Your task to perform on an android device: Add razer naga to the cart on ebay Image 0: 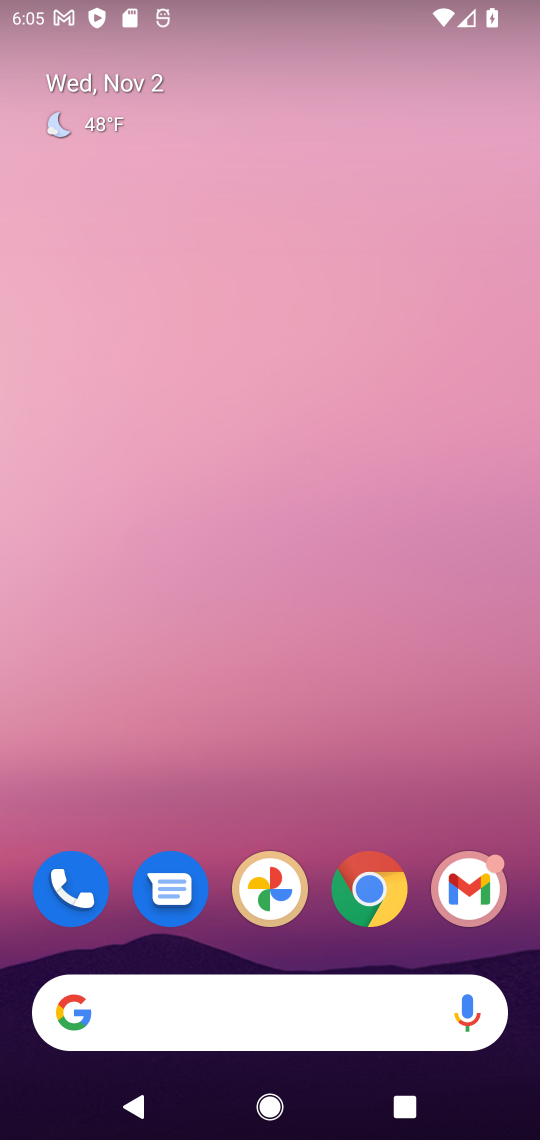
Step 0: click (365, 896)
Your task to perform on an android device: Add razer naga to the cart on ebay Image 1: 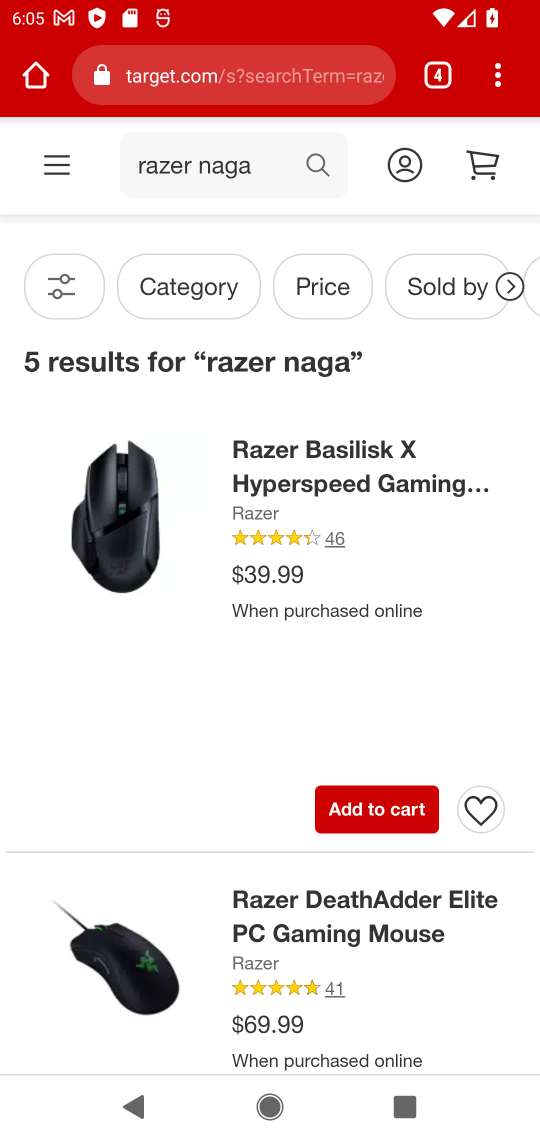
Step 1: click (332, 70)
Your task to perform on an android device: Add razer naga to the cart on ebay Image 2: 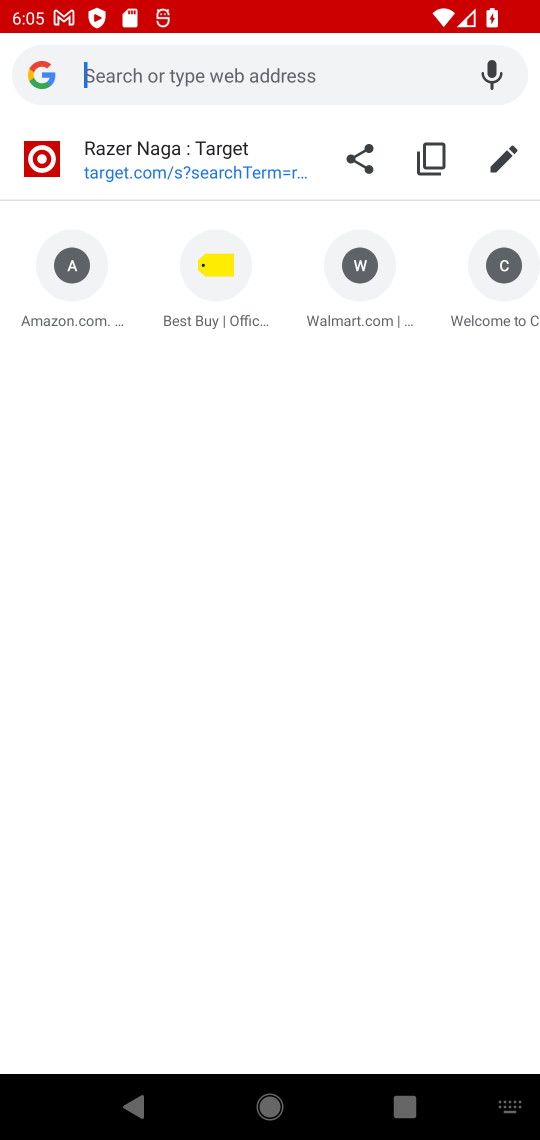
Step 2: drag from (444, 280) to (18, 291)
Your task to perform on an android device: Add razer naga to the cart on ebay Image 3: 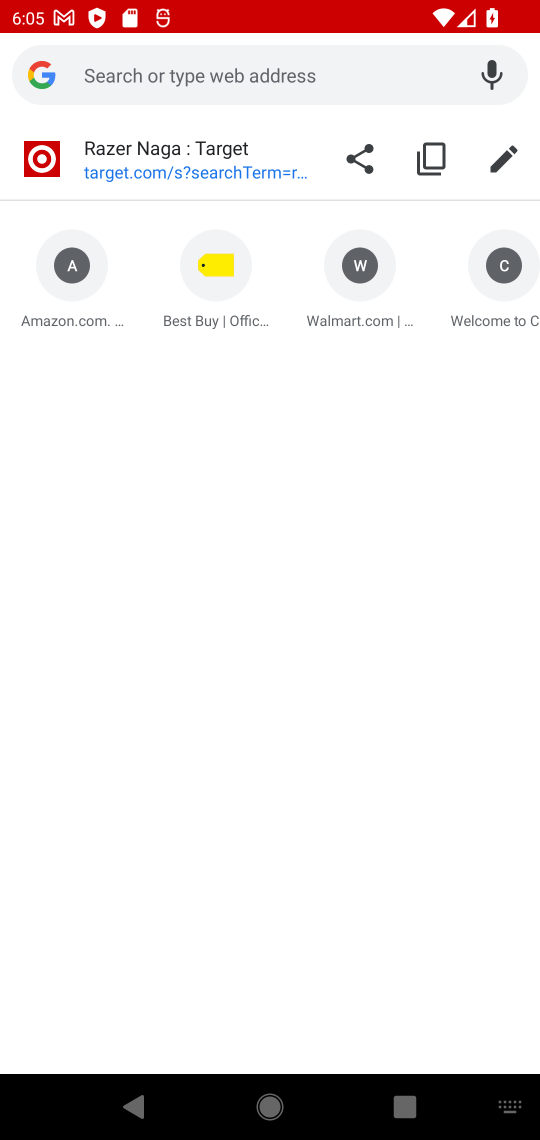
Step 3: drag from (351, 311) to (38, 281)
Your task to perform on an android device: Add razer naga to the cart on ebay Image 4: 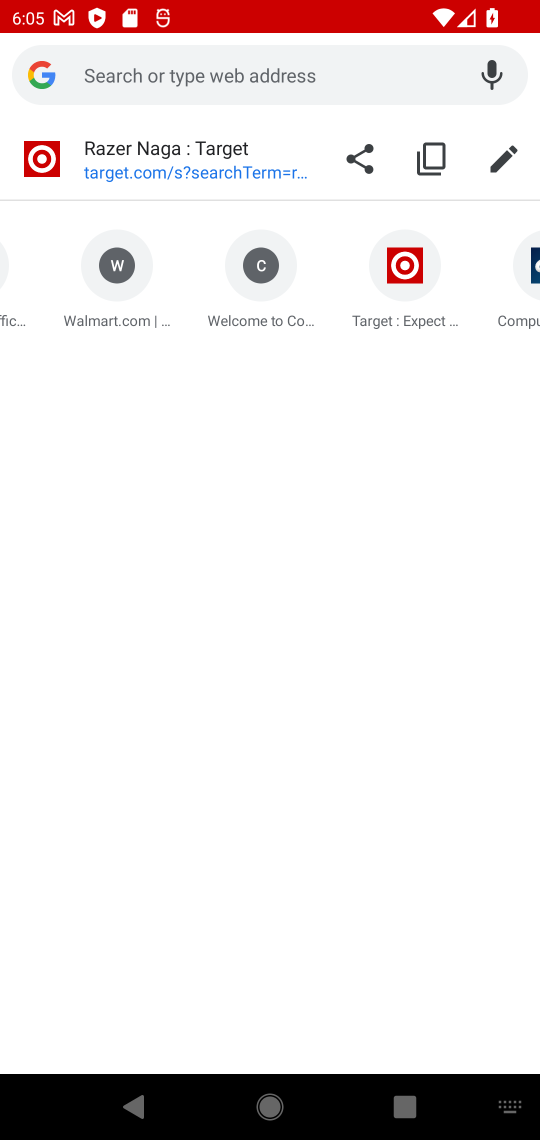
Step 4: drag from (98, 287) to (525, 303)
Your task to perform on an android device: Add razer naga to the cart on ebay Image 5: 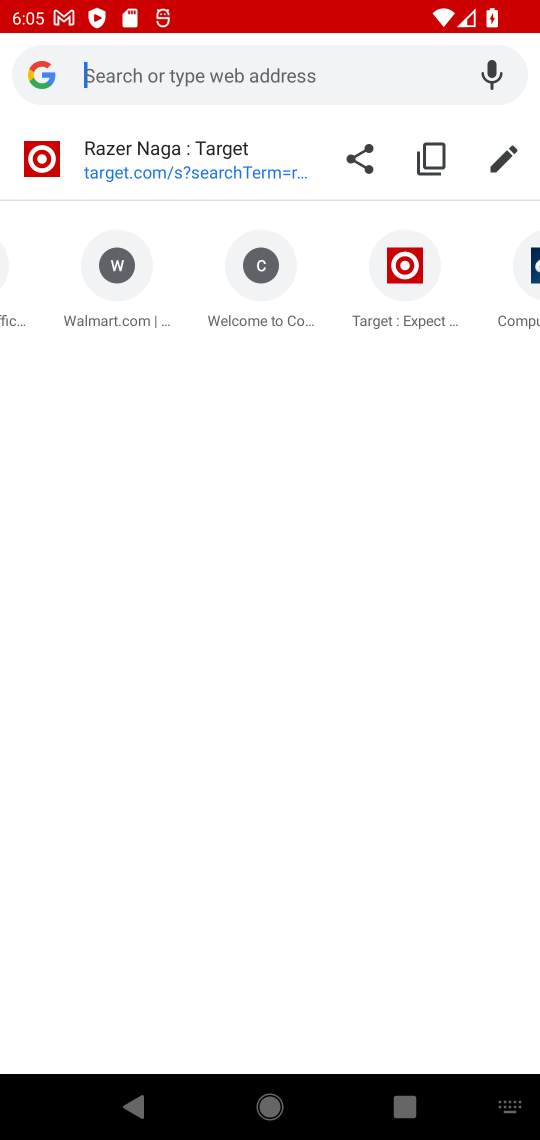
Step 5: drag from (22, 292) to (371, 307)
Your task to perform on an android device: Add razer naga to the cart on ebay Image 6: 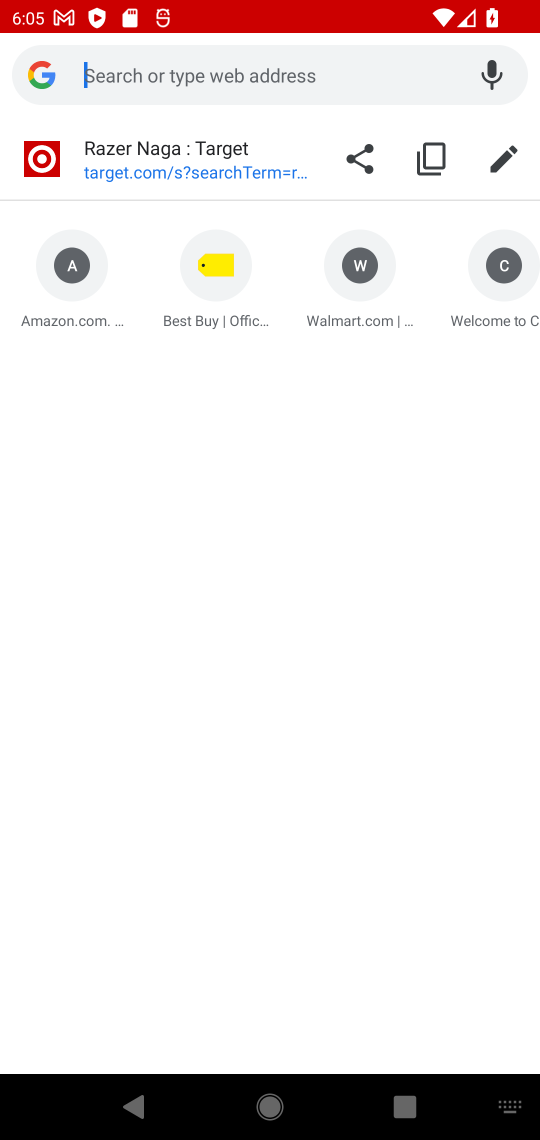
Step 6: drag from (57, 282) to (497, 299)
Your task to perform on an android device: Add razer naga to the cart on ebay Image 7: 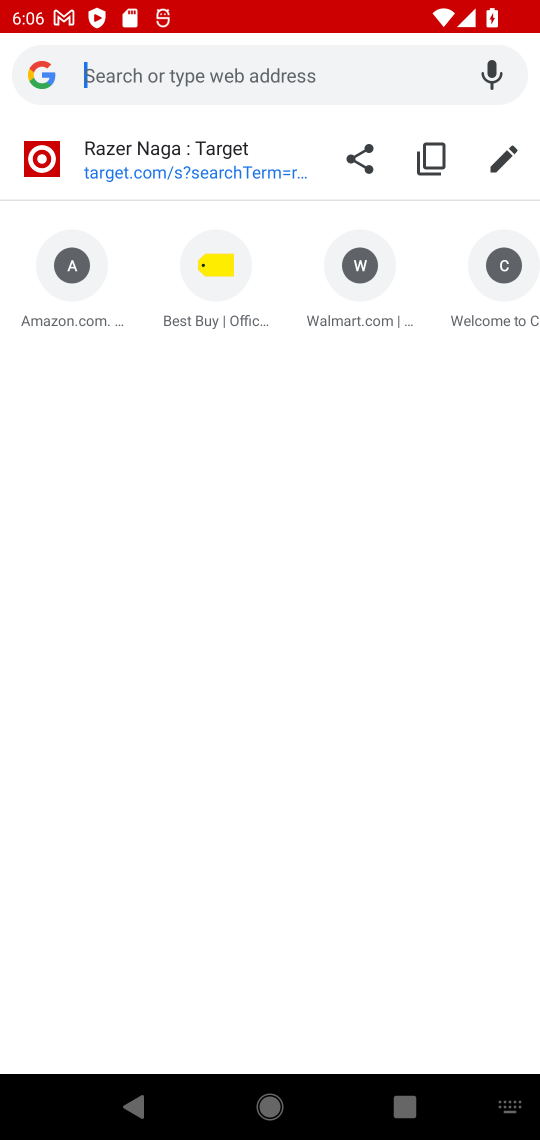
Step 7: type " ebay"
Your task to perform on an android device: Add razer naga to the cart on ebay Image 8: 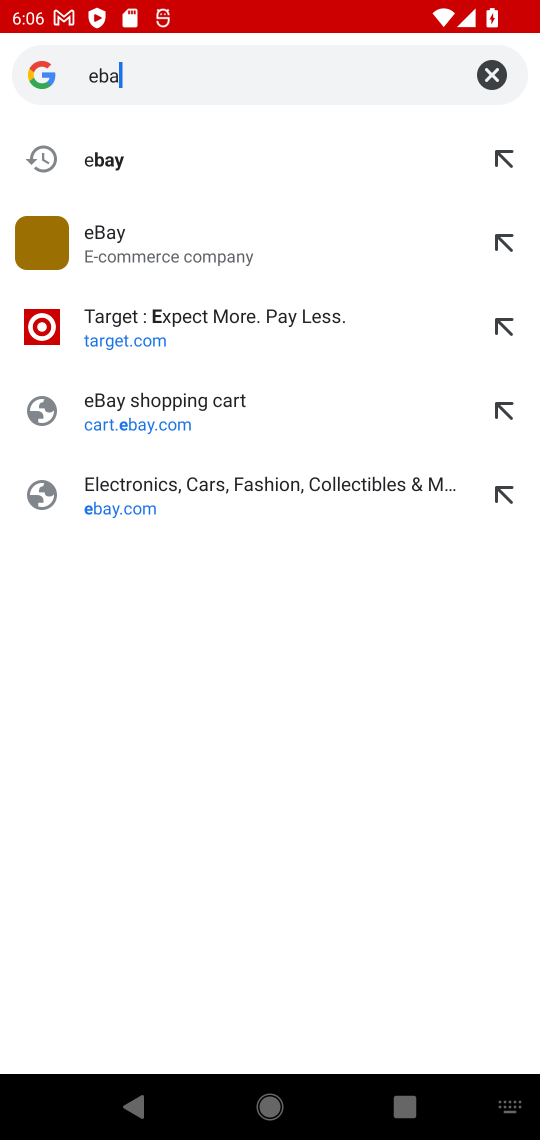
Step 8: press enter
Your task to perform on an android device: Add razer naga to the cart on ebay Image 9: 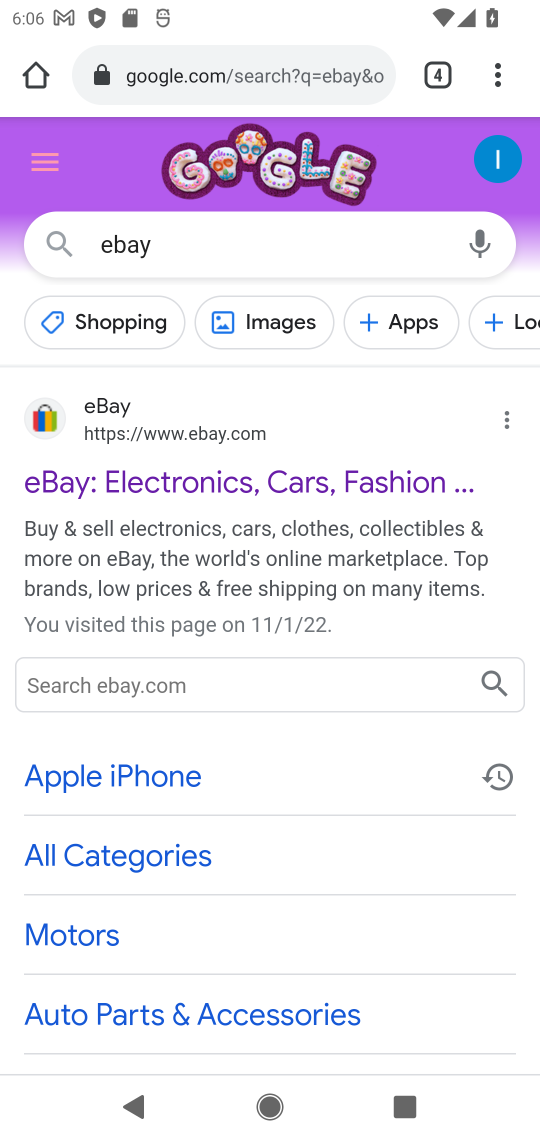
Step 9: click (373, 489)
Your task to perform on an android device: Add razer naga to the cart on ebay Image 10: 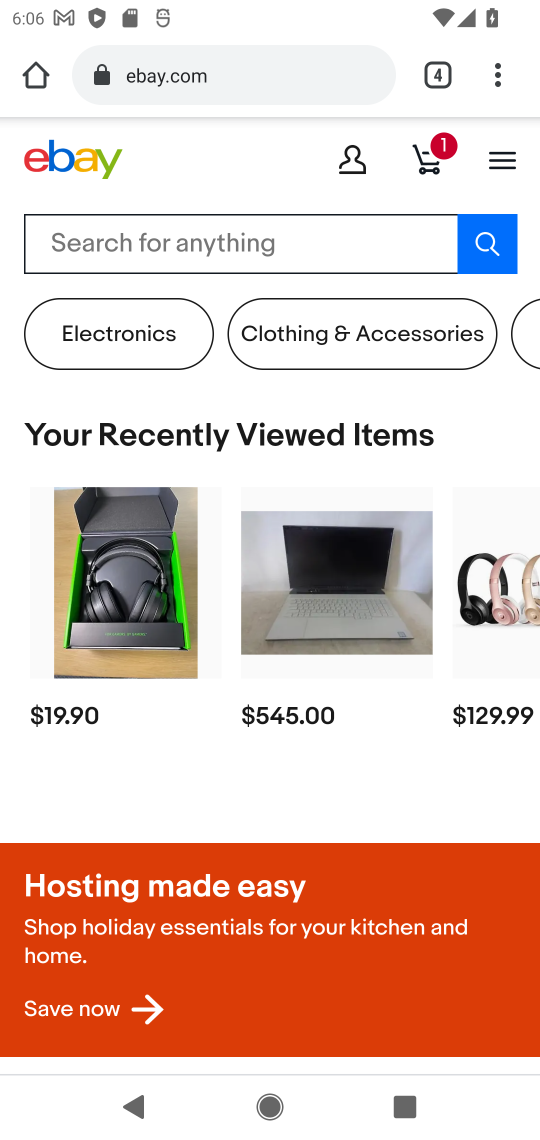
Step 10: click (45, 246)
Your task to perform on an android device: Add razer naga to the cart on ebay Image 11: 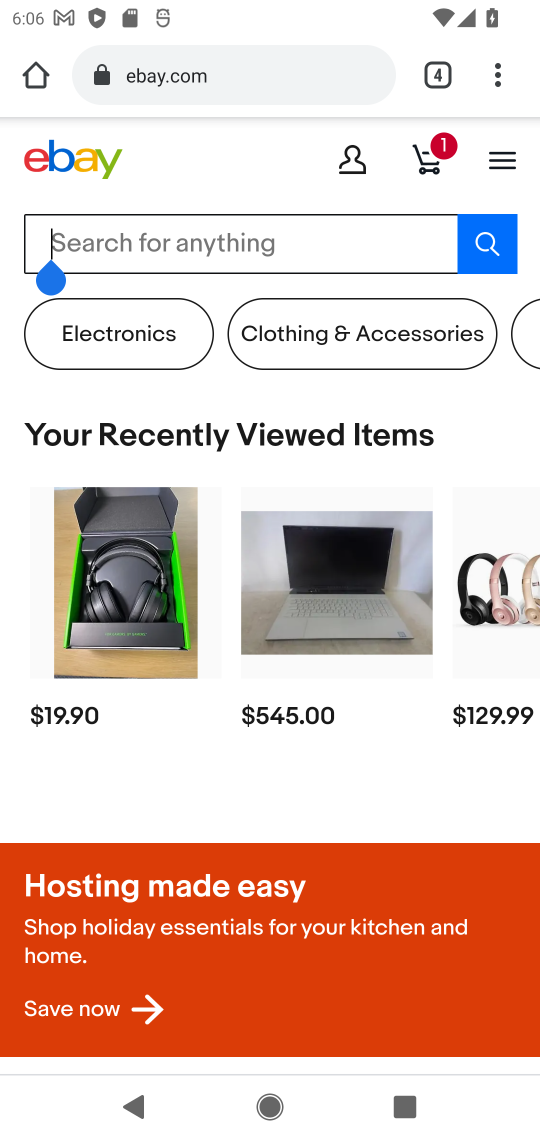
Step 11: type " razer naga "
Your task to perform on an android device: Add razer naga to the cart on ebay Image 12: 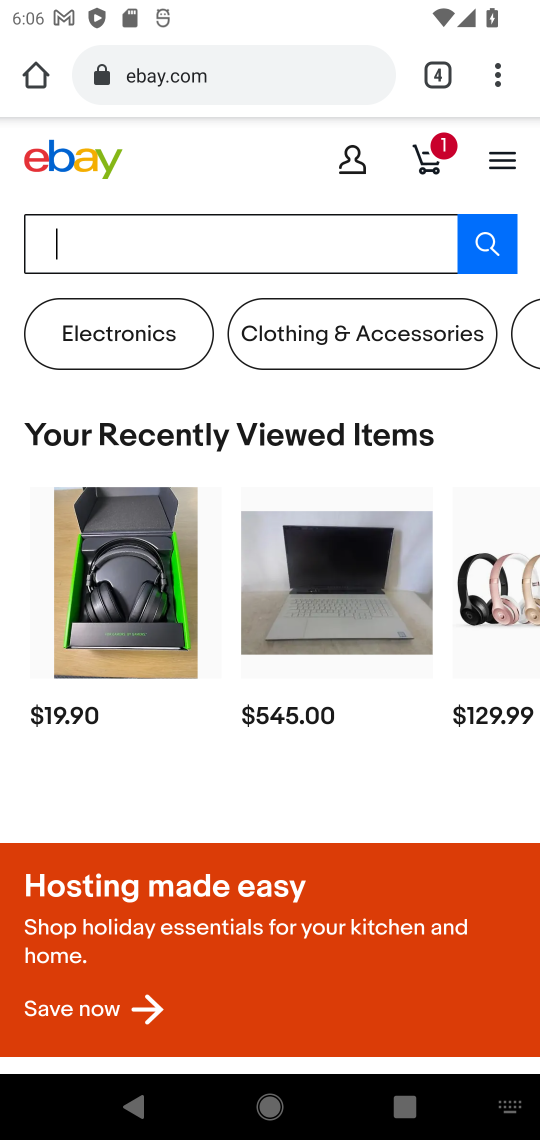
Step 12: press enter
Your task to perform on an android device: Add razer naga to the cart on ebay Image 13: 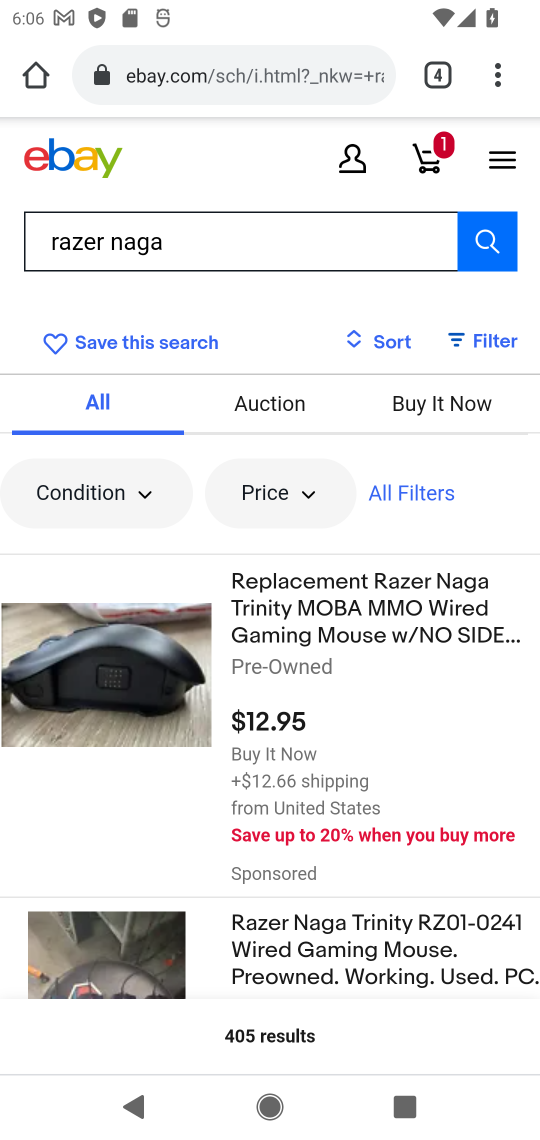
Step 13: click (380, 616)
Your task to perform on an android device: Add razer naga to the cart on ebay Image 14: 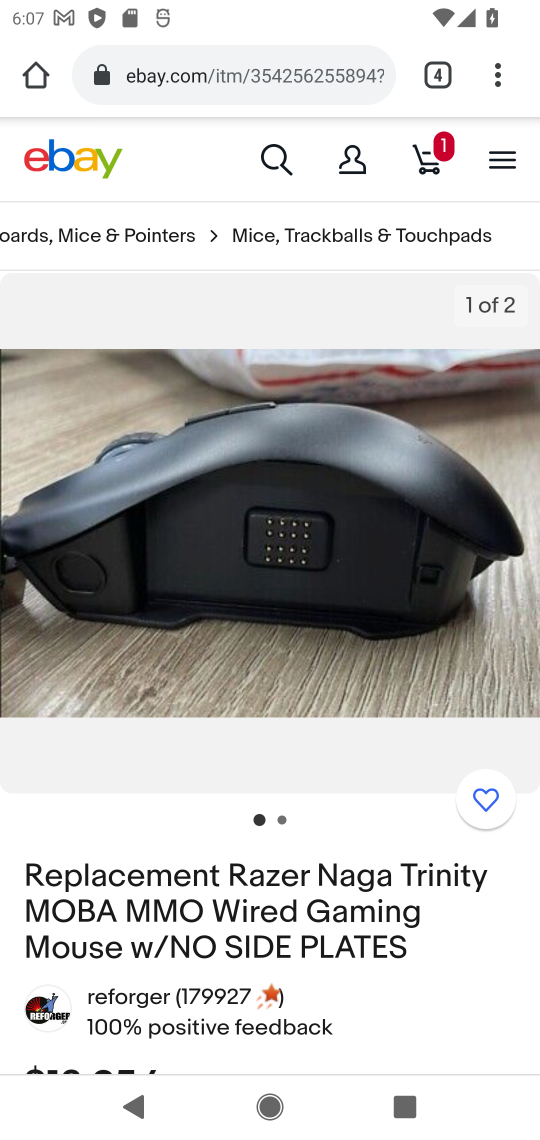
Step 14: drag from (254, 921) to (466, 349)
Your task to perform on an android device: Add razer naga to the cart on ebay Image 15: 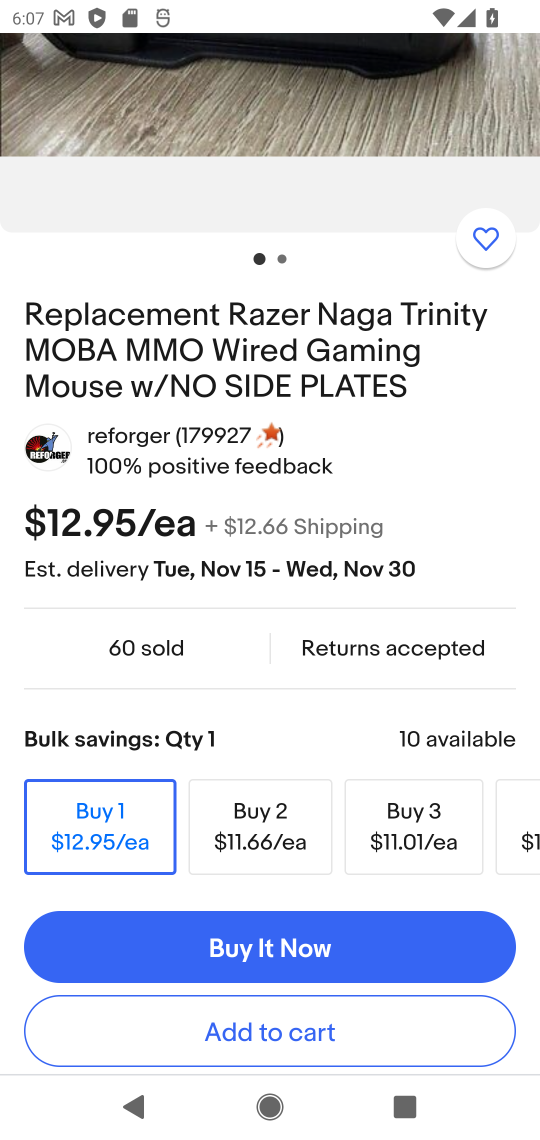
Step 15: click (304, 1026)
Your task to perform on an android device: Add razer naga to the cart on ebay Image 16: 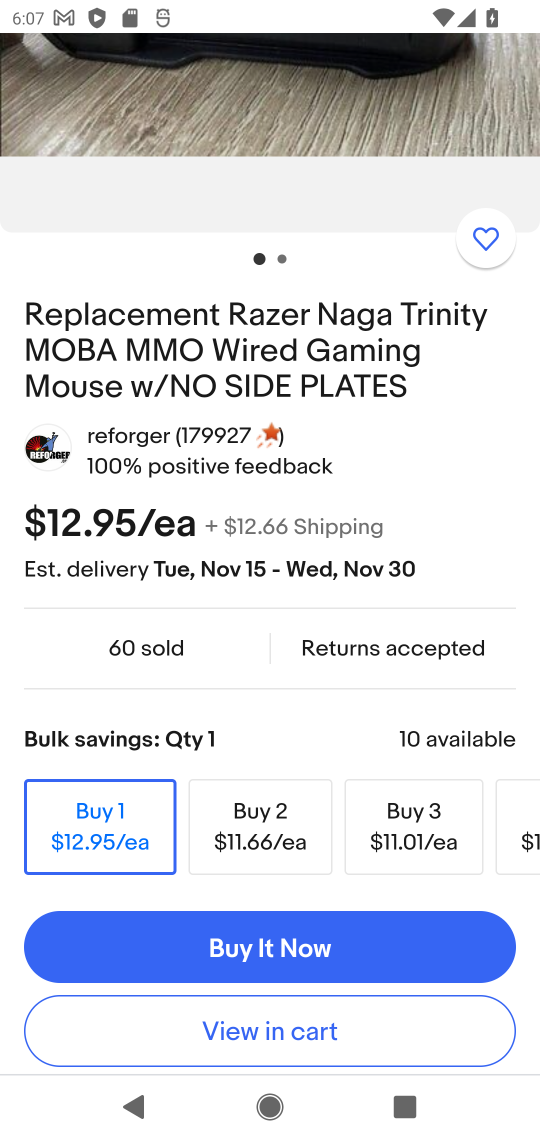
Step 16: click (304, 1024)
Your task to perform on an android device: Add razer naga to the cart on ebay Image 17: 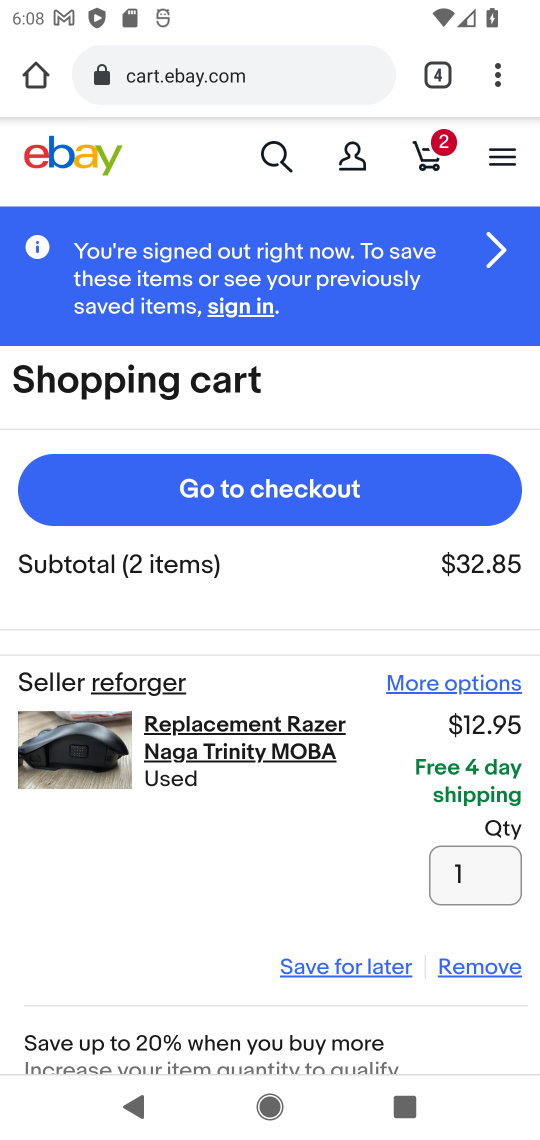
Step 17: task complete